Your task to perform on an android device: turn off javascript in the chrome app Image 0: 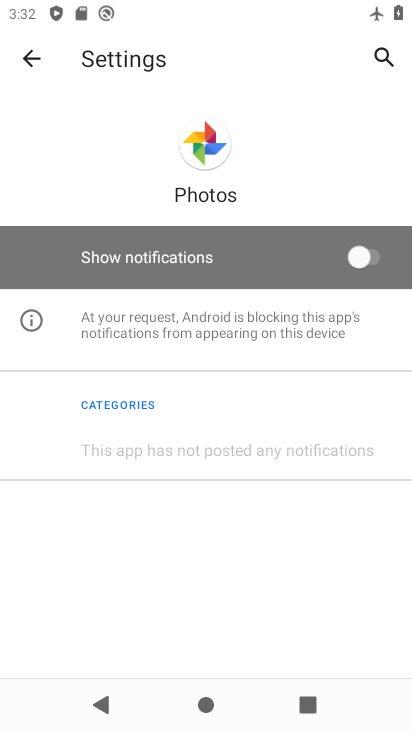
Step 0: press home button
Your task to perform on an android device: turn off javascript in the chrome app Image 1: 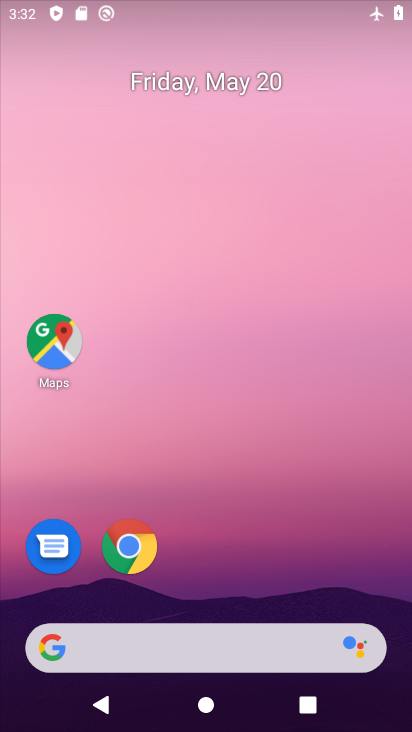
Step 1: drag from (264, 601) to (328, 105)
Your task to perform on an android device: turn off javascript in the chrome app Image 2: 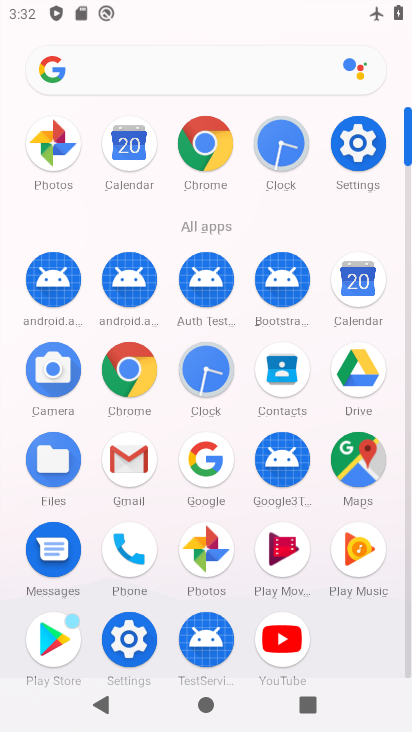
Step 2: click (116, 362)
Your task to perform on an android device: turn off javascript in the chrome app Image 3: 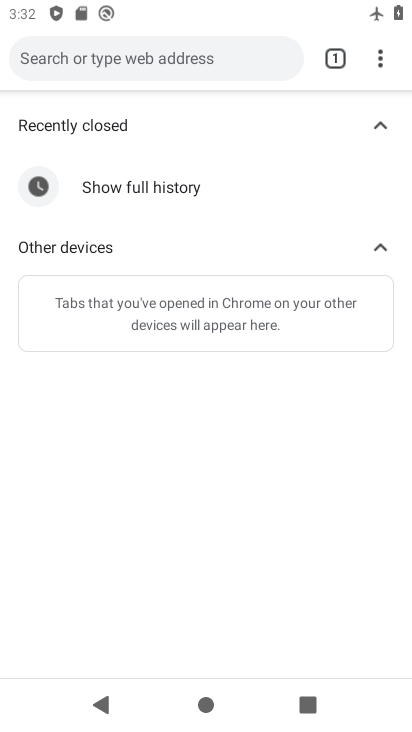
Step 3: drag from (382, 54) to (202, 498)
Your task to perform on an android device: turn off javascript in the chrome app Image 4: 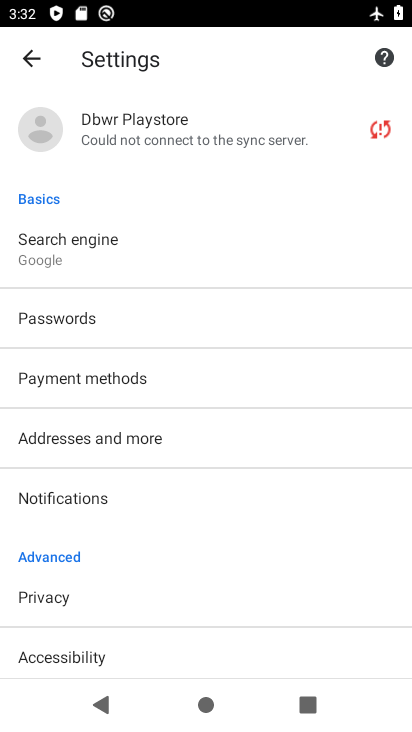
Step 4: drag from (119, 583) to (216, 135)
Your task to perform on an android device: turn off javascript in the chrome app Image 5: 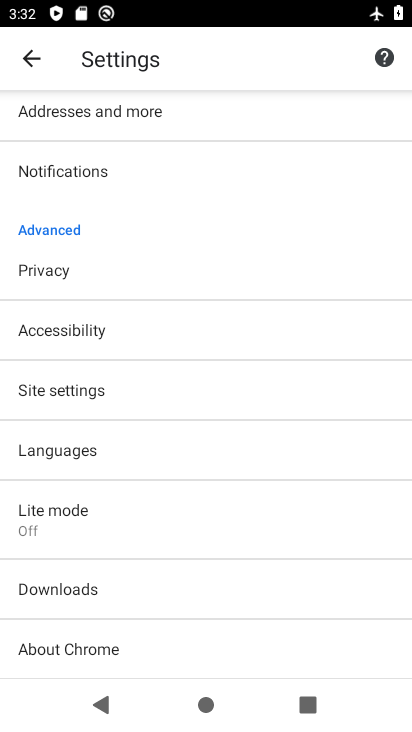
Step 5: click (87, 396)
Your task to perform on an android device: turn off javascript in the chrome app Image 6: 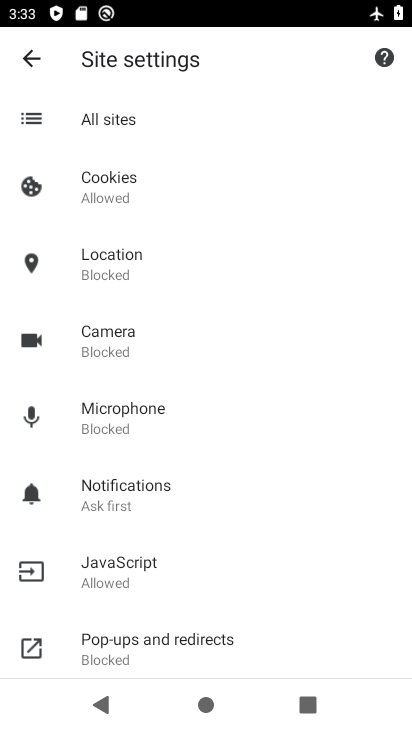
Step 6: click (174, 570)
Your task to perform on an android device: turn off javascript in the chrome app Image 7: 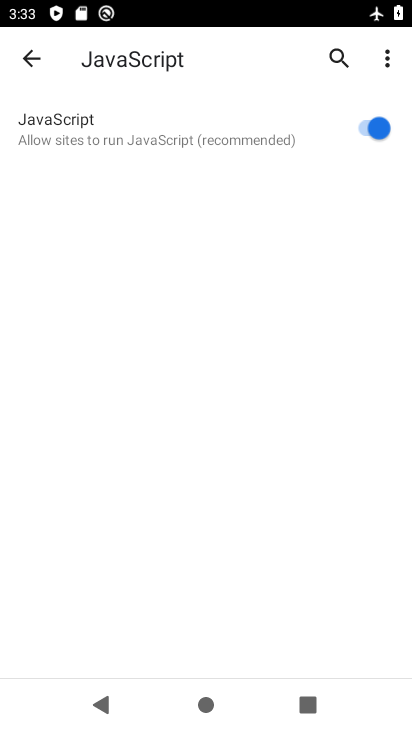
Step 7: click (362, 133)
Your task to perform on an android device: turn off javascript in the chrome app Image 8: 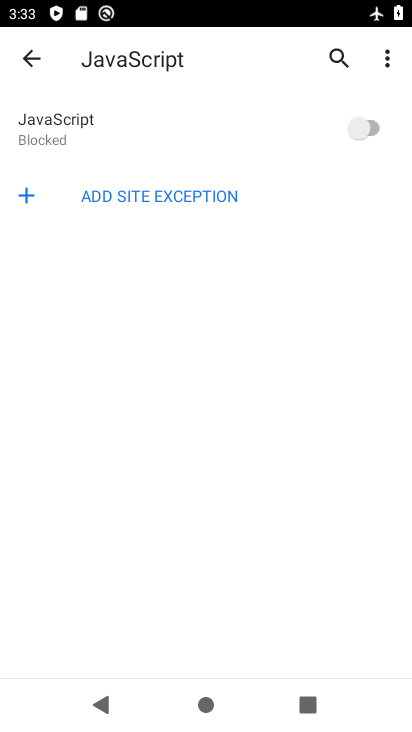
Step 8: task complete